Your task to perform on an android device: Open Yahoo.com Image 0: 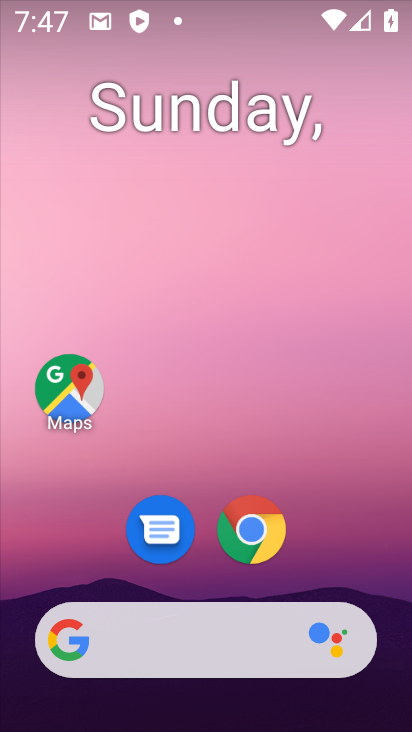
Step 0: click (238, 537)
Your task to perform on an android device: Open Yahoo.com Image 1: 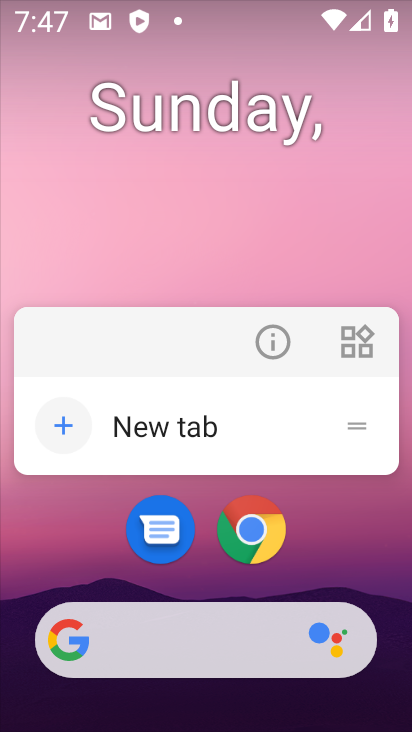
Step 1: click (275, 340)
Your task to perform on an android device: Open Yahoo.com Image 2: 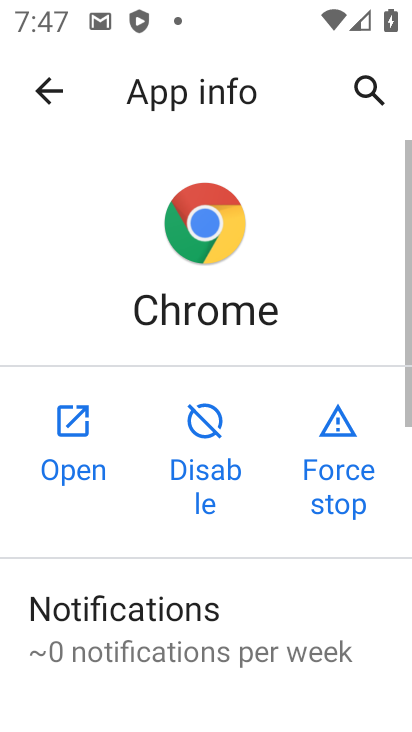
Step 2: click (88, 452)
Your task to perform on an android device: Open Yahoo.com Image 3: 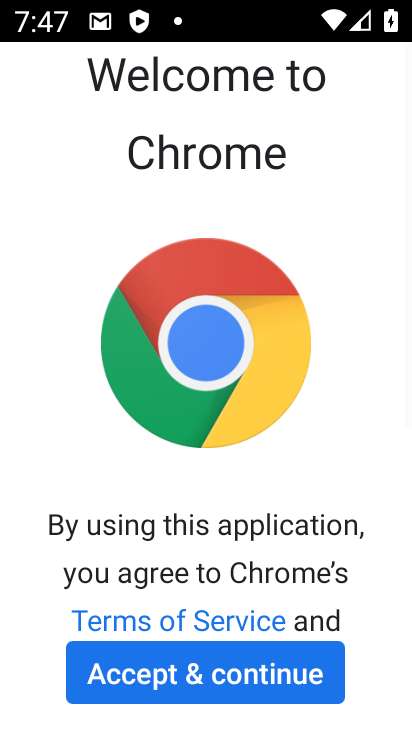
Step 3: click (191, 681)
Your task to perform on an android device: Open Yahoo.com Image 4: 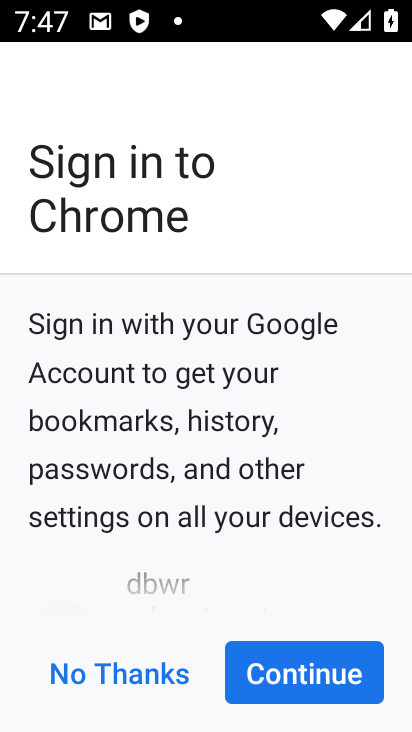
Step 4: click (289, 678)
Your task to perform on an android device: Open Yahoo.com Image 5: 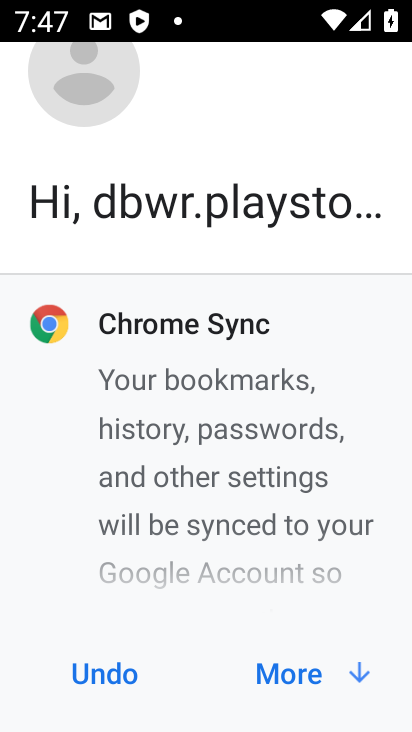
Step 5: click (289, 678)
Your task to perform on an android device: Open Yahoo.com Image 6: 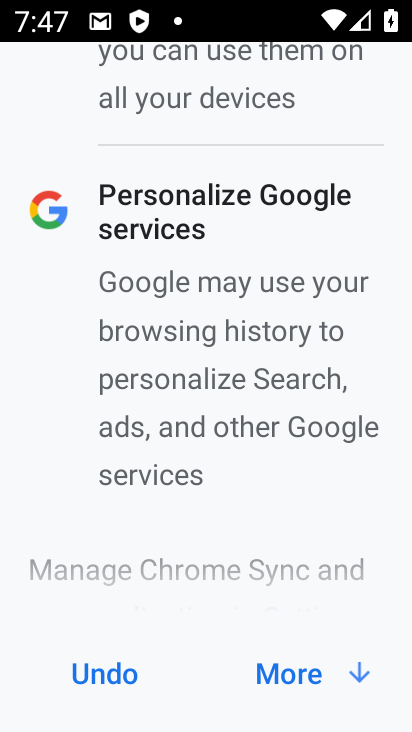
Step 6: click (289, 678)
Your task to perform on an android device: Open Yahoo.com Image 7: 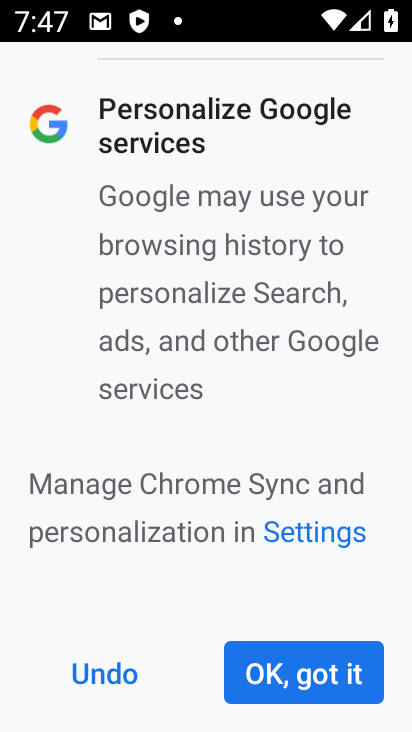
Step 7: click (289, 678)
Your task to perform on an android device: Open Yahoo.com Image 8: 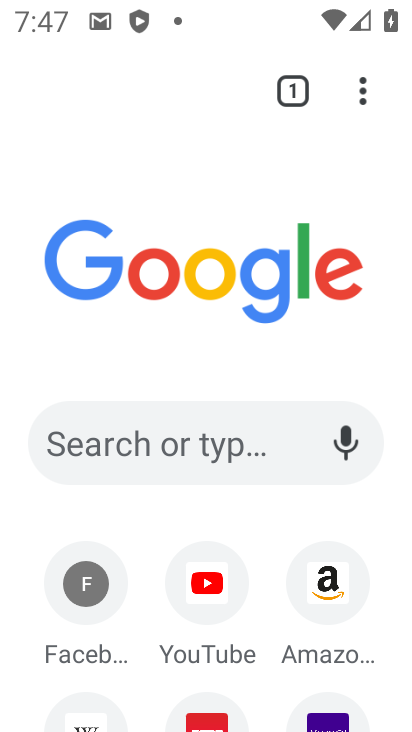
Step 8: drag from (253, 671) to (283, 412)
Your task to perform on an android device: Open Yahoo.com Image 9: 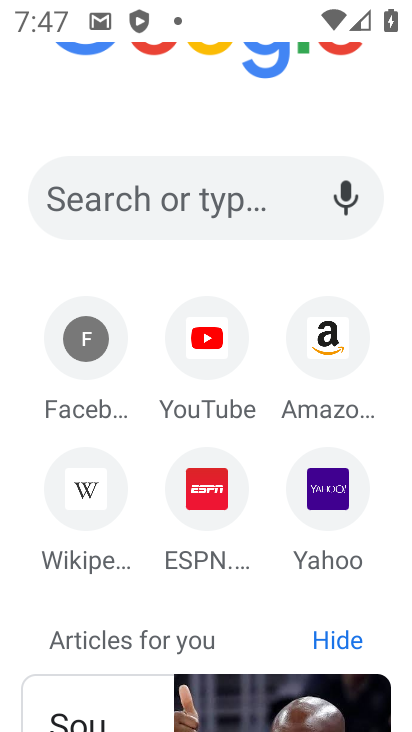
Step 9: click (347, 513)
Your task to perform on an android device: Open Yahoo.com Image 10: 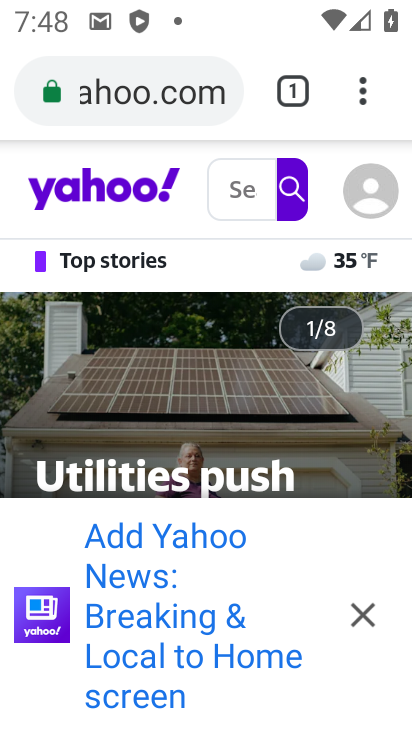
Step 10: task complete